Your task to perform on an android device: See recent photos Image 0: 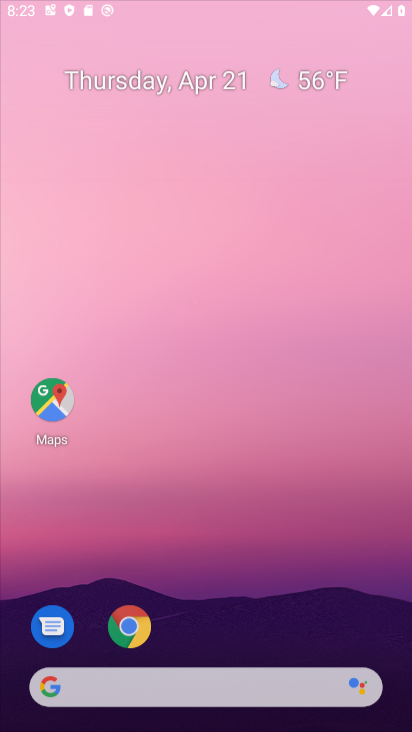
Step 0: click (302, 493)
Your task to perform on an android device: See recent photos Image 1: 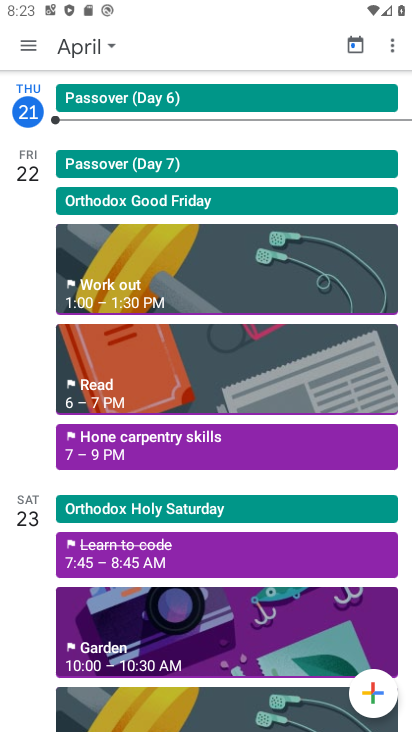
Step 1: press back button
Your task to perform on an android device: See recent photos Image 2: 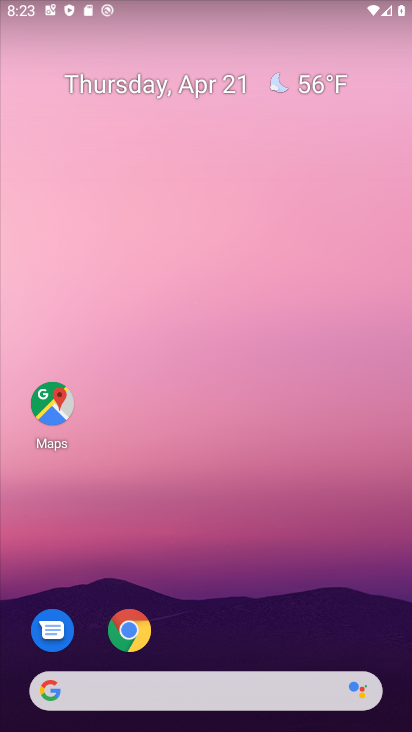
Step 2: drag from (191, 672) to (267, 28)
Your task to perform on an android device: See recent photos Image 3: 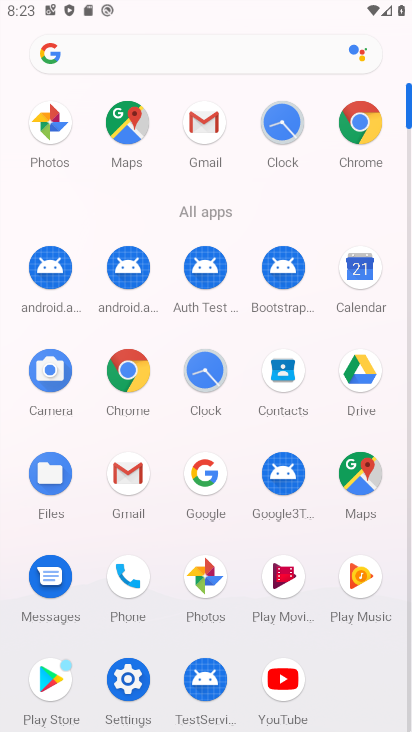
Step 3: click (196, 576)
Your task to perform on an android device: See recent photos Image 4: 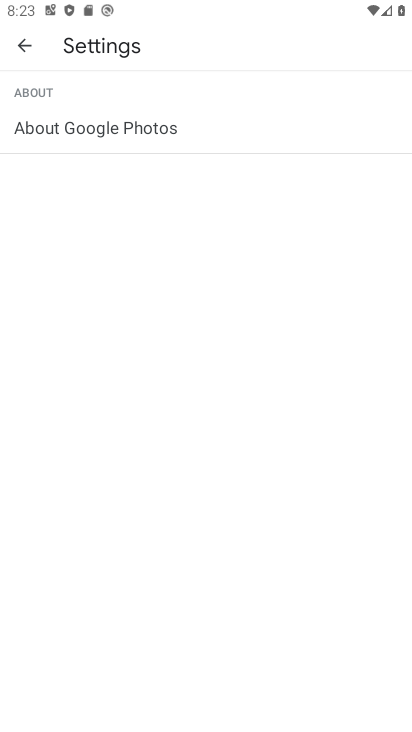
Step 4: press back button
Your task to perform on an android device: See recent photos Image 5: 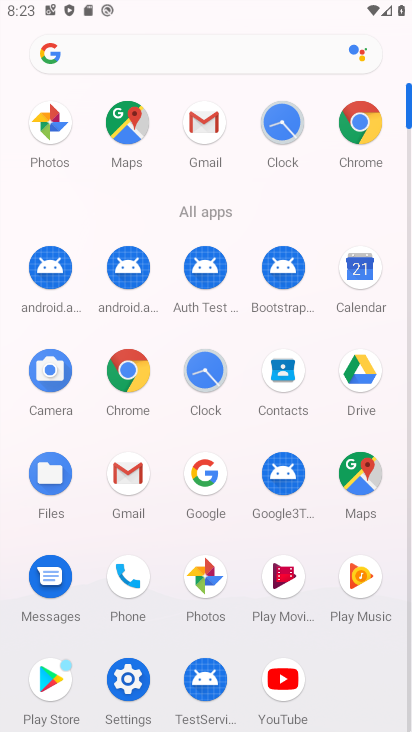
Step 5: click (205, 586)
Your task to perform on an android device: See recent photos Image 6: 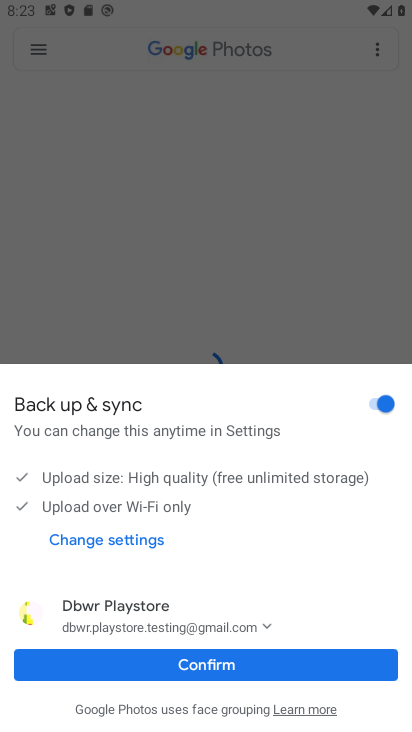
Step 6: click (244, 666)
Your task to perform on an android device: See recent photos Image 7: 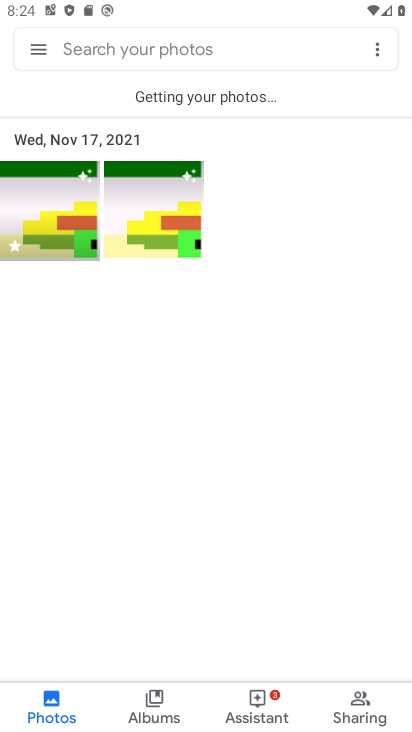
Step 7: task complete